Your task to perform on an android device: open chrome and create a bookmark for the current page Image 0: 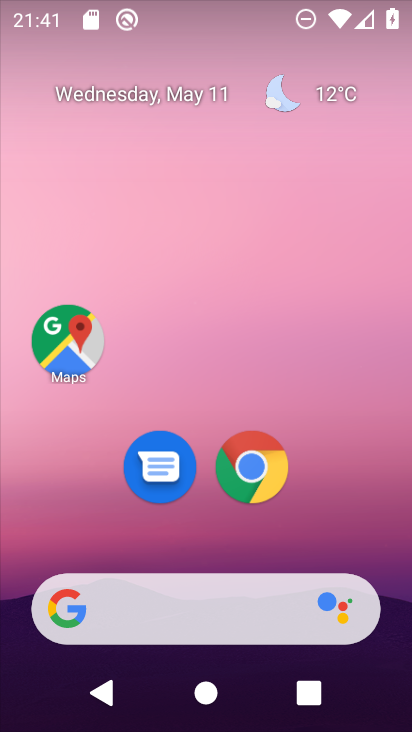
Step 0: press home button
Your task to perform on an android device: open chrome and create a bookmark for the current page Image 1: 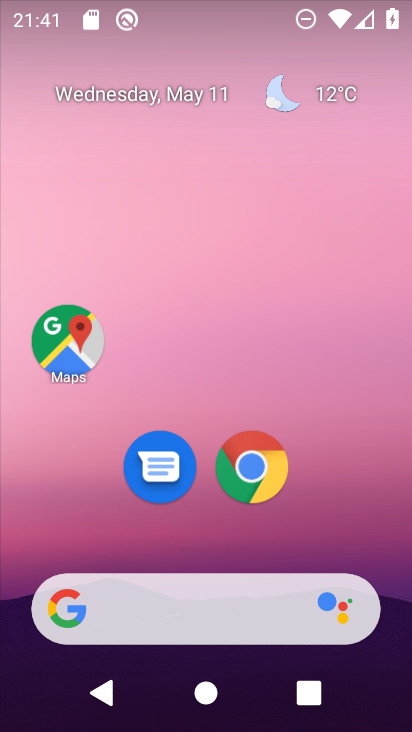
Step 1: drag from (213, 546) to (225, 43)
Your task to perform on an android device: open chrome and create a bookmark for the current page Image 2: 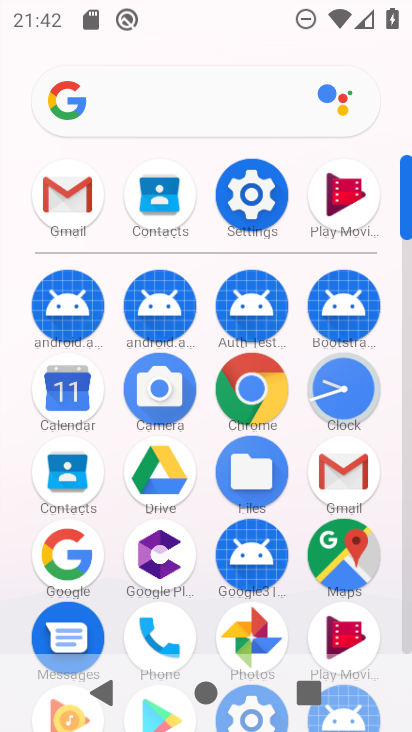
Step 2: click (250, 376)
Your task to perform on an android device: open chrome and create a bookmark for the current page Image 3: 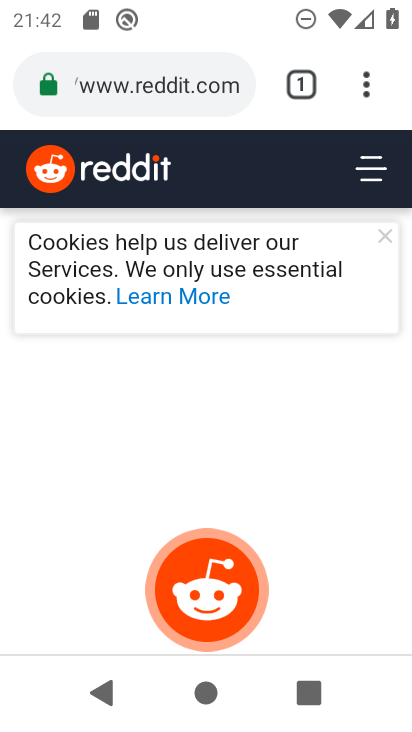
Step 3: click (364, 77)
Your task to perform on an android device: open chrome and create a bookmark for the current page Image 4: 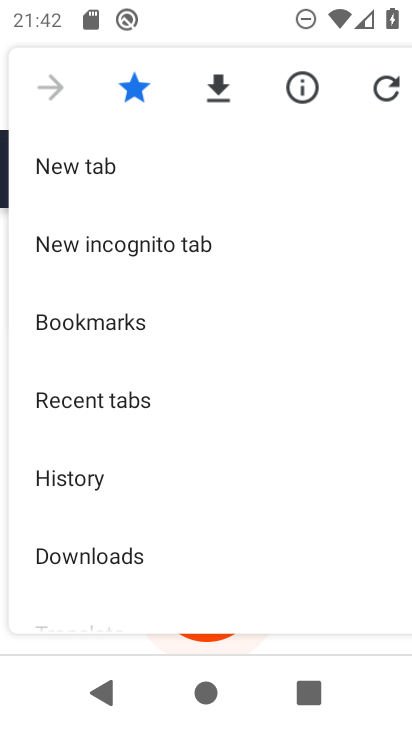
Step 4: drag from (162, 516) to (196, 105)
Your task to perform on an android device: open chrome and create a bookmark for the current page Image 5: 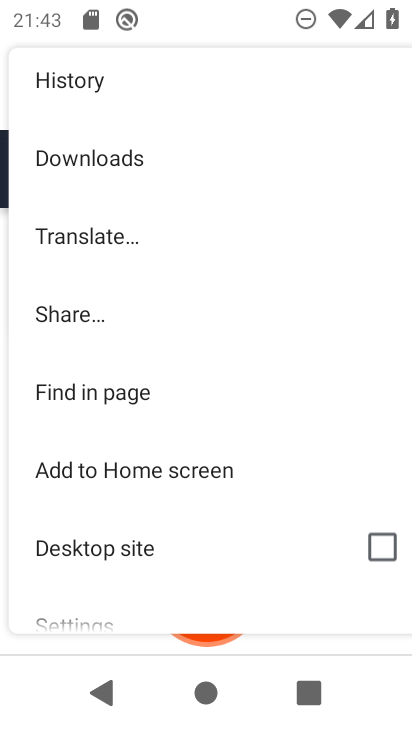
Step 5: drag from (152, 119) to (162, 532)
Your task to perform on an android device: open chrome and create a bookmark for the current page Image 6: 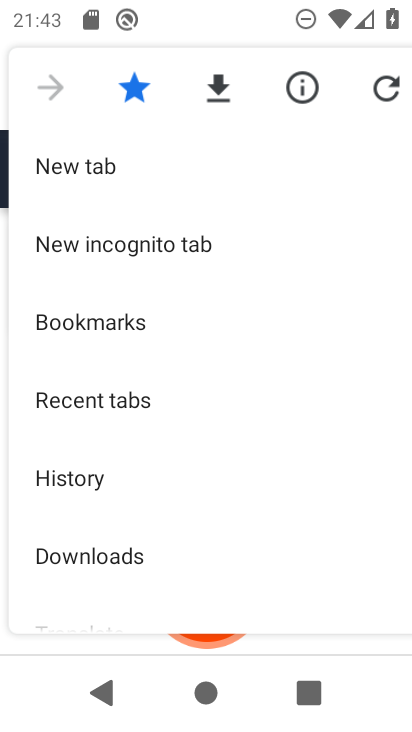
Step 6: click (157, 321)
Your task to perform on an android device: open chrome and create a bookmark for the current page Image 7: 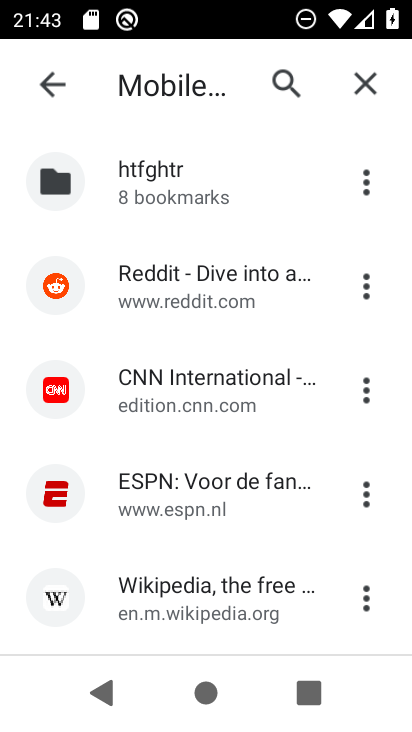
Step 7: task complete